Your task to perform on an android device: change alarm snooze length Image 0: 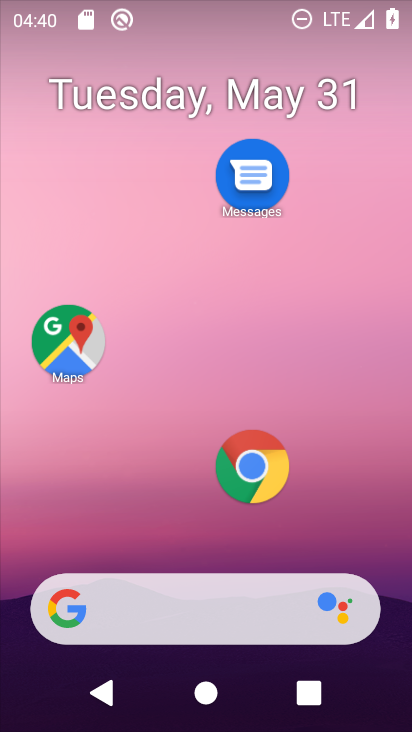
Step 0: drag from (152, 534) to (202, 65)
Your task to perform on an android device: change alarm snooze length Image 1: 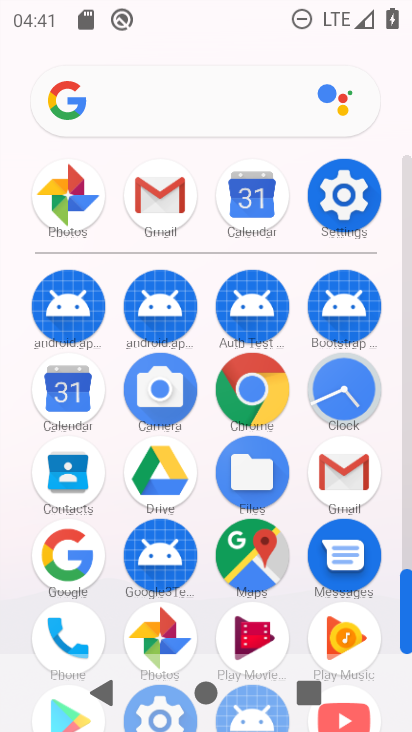
Step 1: click (342, 376)
Your task to perform on an android device: change alarm snooze length Image 2: 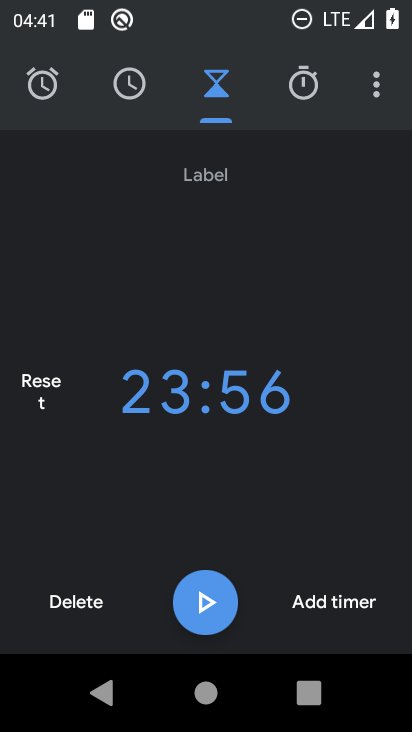
Step 2: click (373, 79)
Your task to perform on an android device: change alarm snooze length Image 3: 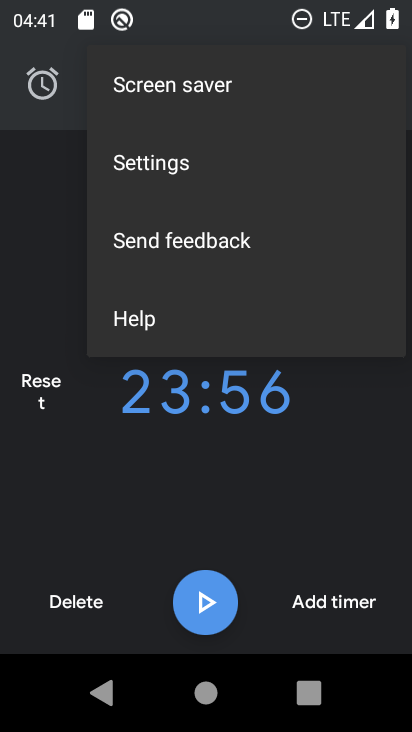
Step 3: click (192, 164)
Your task to perform on an android device: change alarm snooze length Image 4: 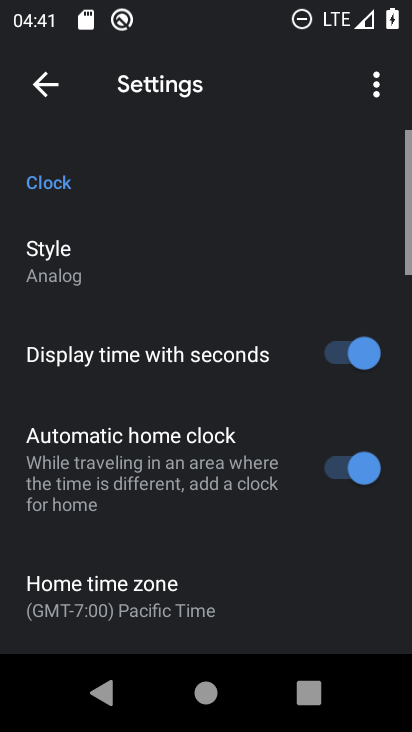
Step 4: drag from (136, 605) to (204, 86)
Your task to perform on an android device: change alarm snooze length Image 5: 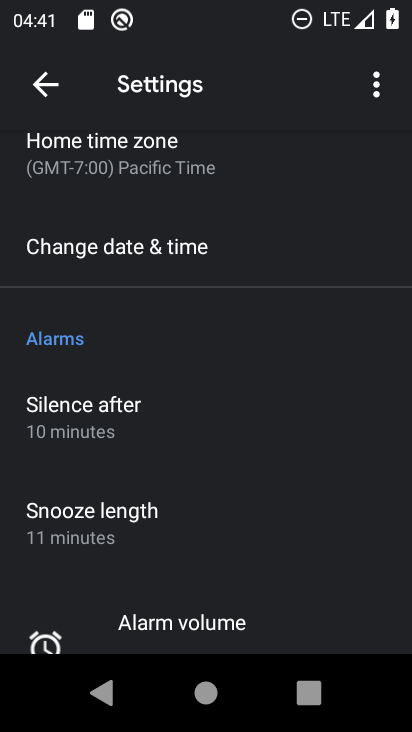
Step 5: click (89, 526)
Your task to perform on an android device: change alarm snooze length Image 6: 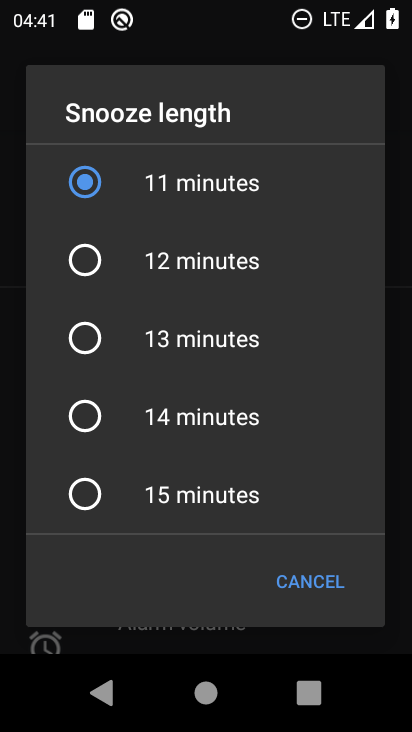
Step 6: click (99, 259)
Your task to perform on an android device: change alarm snooze length Image 7: 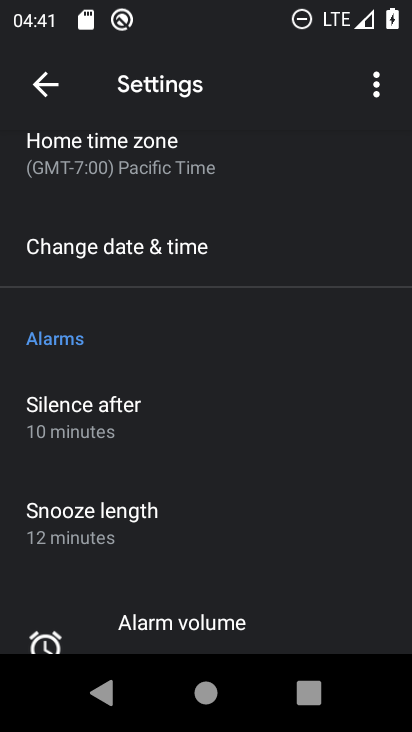
Step 7: task complete